Your task to perform on an android device: choose inbox layout in the gmail app Image 0: 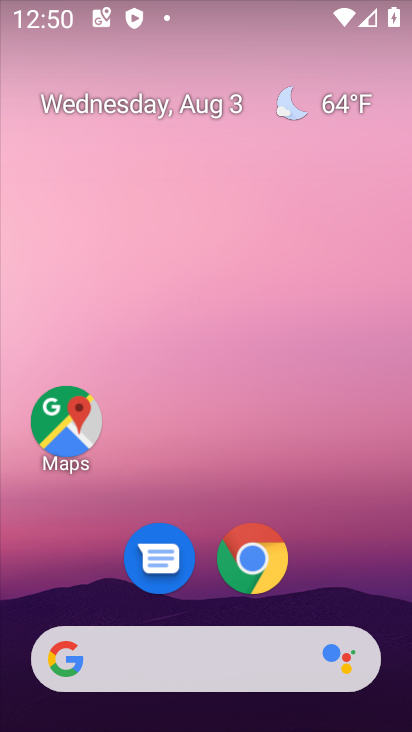
Step 0: drag from (380, 559) to (341, 241)
Your task to perform on an android device: choose inbox layout in the gmail app Image 1: 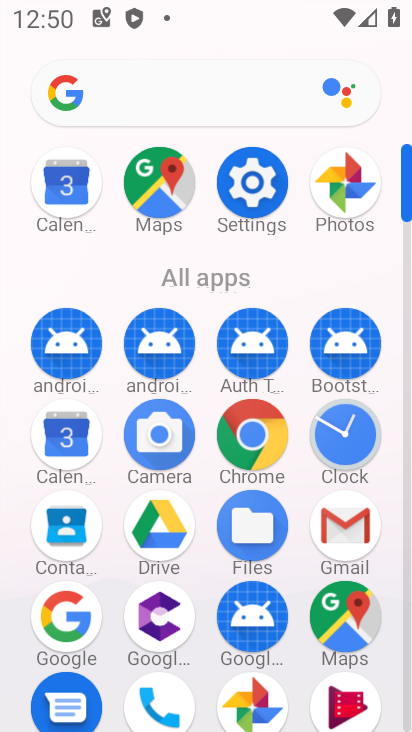
Step 1: click (336, 530)
Your task to perform on an android device: choose inbox layout in the gmail app Image 2: 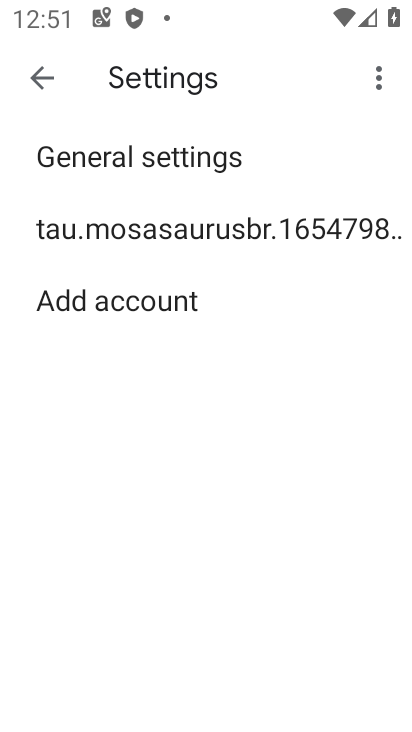
Step 2: click (110, 220)
Your task to perform on an android device: choose inbox layout in the gmail app Image 3: 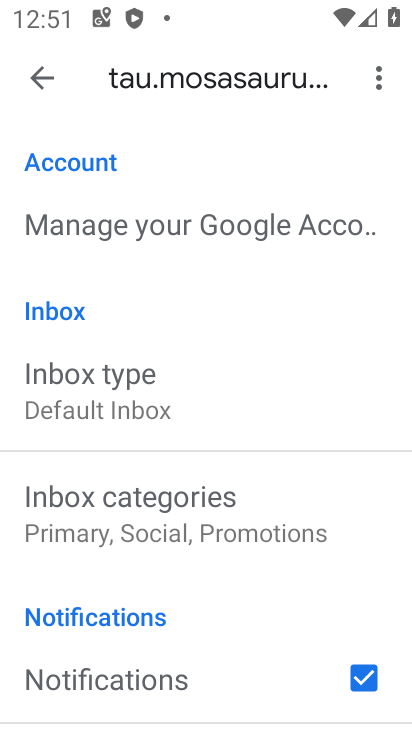
Step 3: click (177, 380)
Your task to perform on an android device: choose inbox layout in the gmail app Image 4: 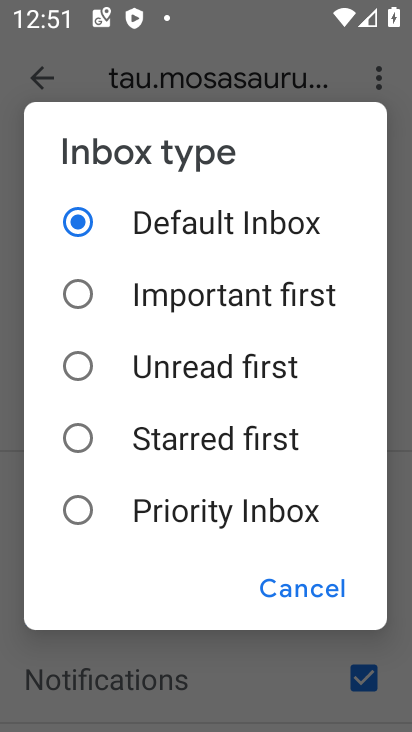
Step 4: click (199, 440)
Your task to perform on an android device: choose inbox layout in the gmail app Image 5: 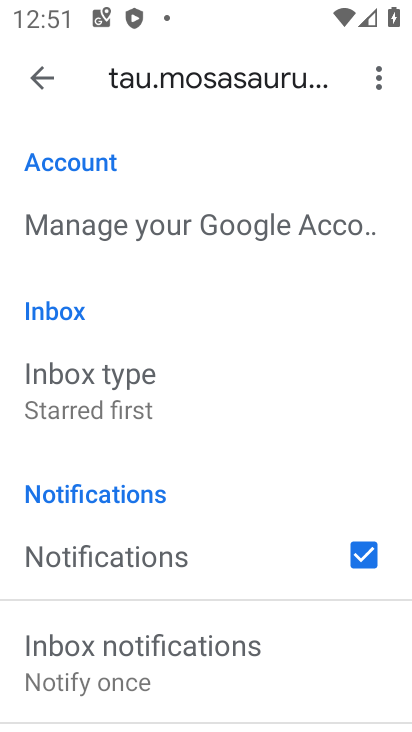
Step 5: task complete